Your task to perform on an android device: Go to eBay Image 0: 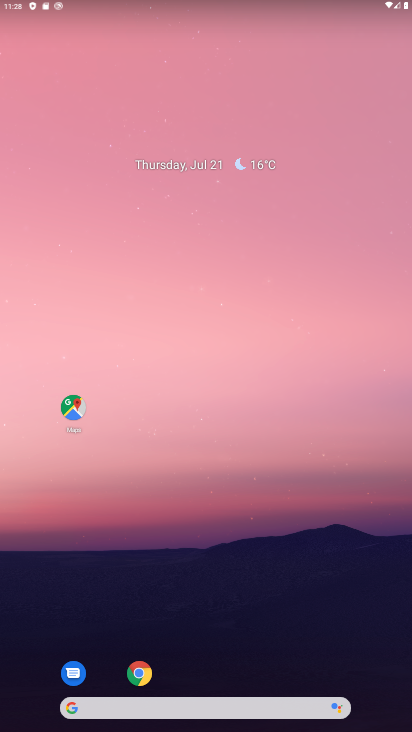
Step 0: drag from (223, 617) to (229, 11)
Your task to perform on an android device: Go to eBay Image 1: 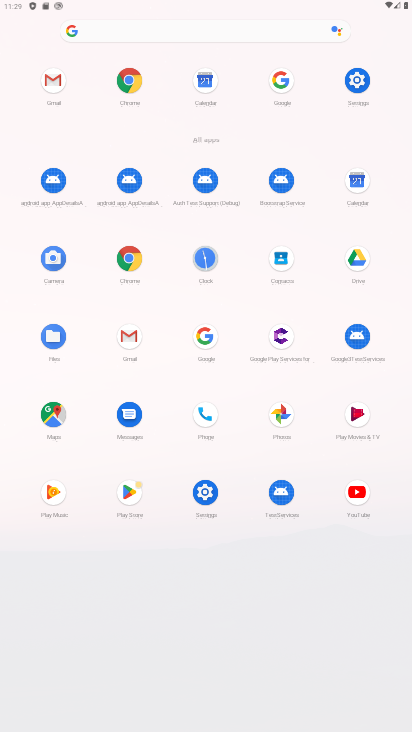
Step 1: click (130, 148)
Your task to perform on an android device: Go to eBay Image 2: 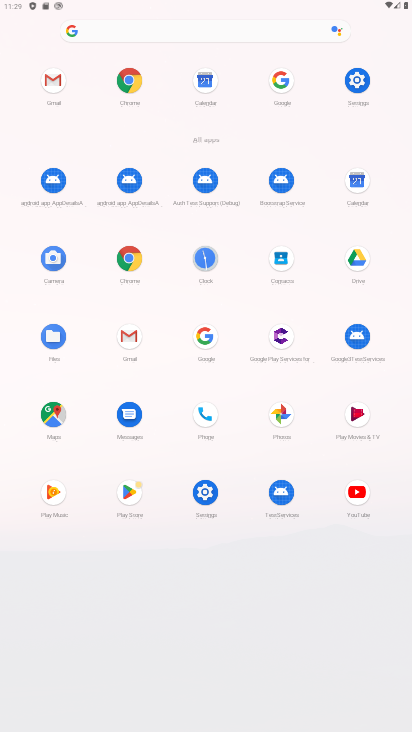
Step 2: click (143, 91)
Your task to perform on an android device: Go to eBay Image 3: 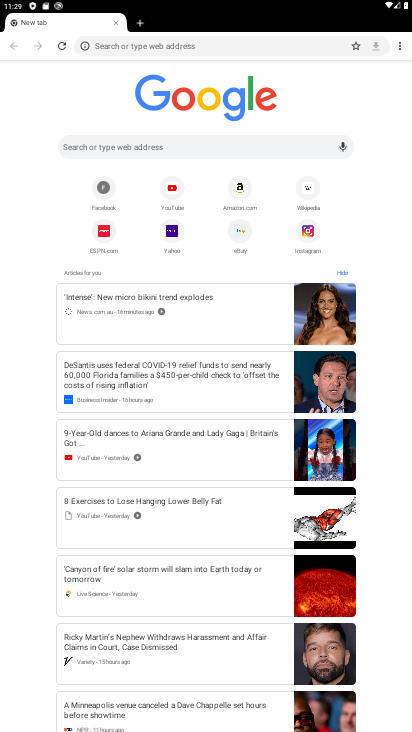
Step 3: click (242, 229)
Your task to perform on an android device: Go to eBay Image 4: 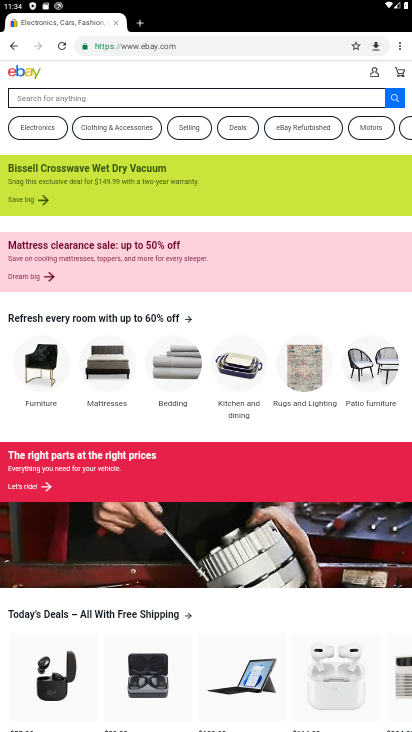
Step 4: task complete